Your task to perform on an android device: open app "Microsoft Excel" (install if not already installed), go to login, and select forgot password Image 0: 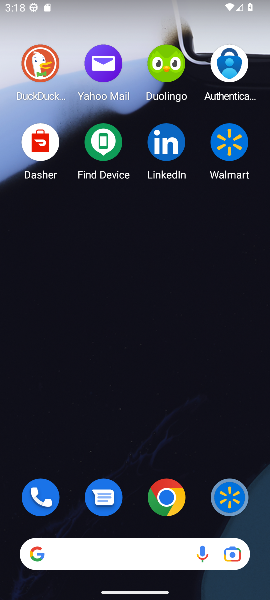
Step 0: drag from (145, 555) to (165, 271)
Your task to perform on an android device: open app "Microsoft Excel" (install if not already installed), go to login, and select forgot password Image 1: 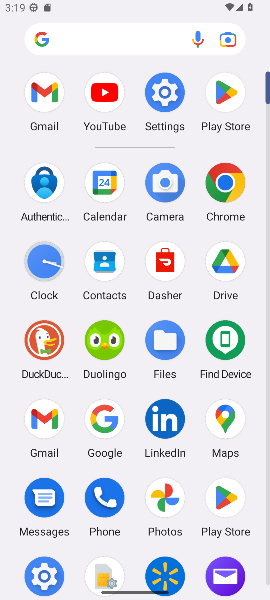
Step 1: click (228, 98)
Your task to perform on an android device: open app "Microsoft Excel" (install if not already installed), go to login, and select forgot password Image 2: 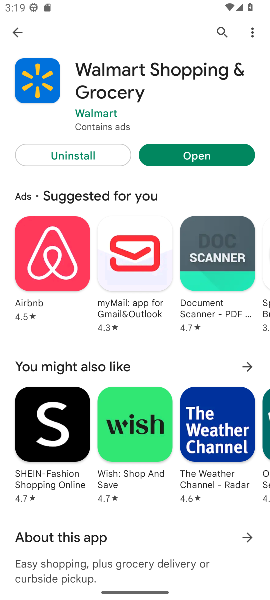
Step 2: press back button
Your task to perform on an android device: open app "Microsoft Excel" (install if not already installed), go to login, and select forgot password Image 3: 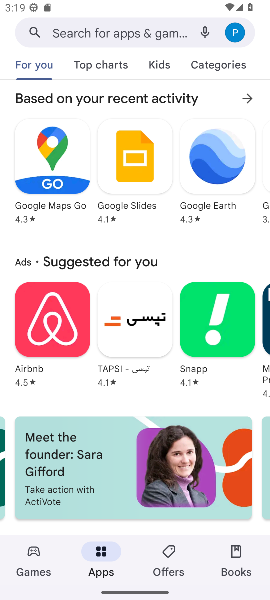
Step 3: click (139, 35)
Your task to perform on an android device: open app "Microsoft Excel" (install if not already installed), go to login, and select forgot password Image 4: 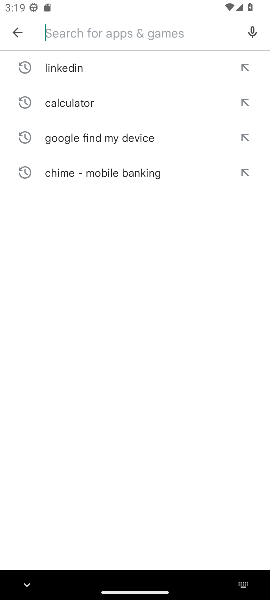
Step 4: type "Microsoft Excel"
Your task to perform on an android device: open app "Microsoft Excel" (install if not already installed), go to login, and select forgot password Image 5: 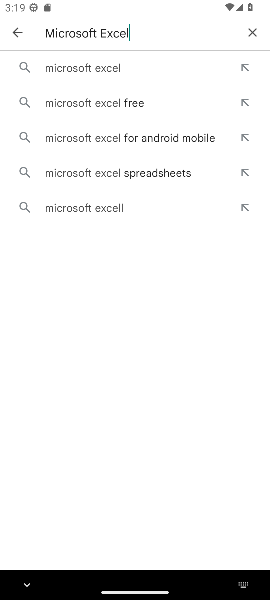
Step 5: click (108, 71)
Your task to perform on an android device: open app "Microsoft Excel" (install if not already installed), go to login, and select forgot password Image 6: 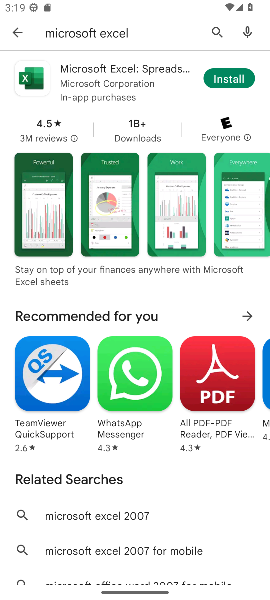
Step 6: click (229, 82)
Your task to perform on an android device: open app "Microsoft Excel" (install if not already installed), go to login, and select forgot password Image 7: 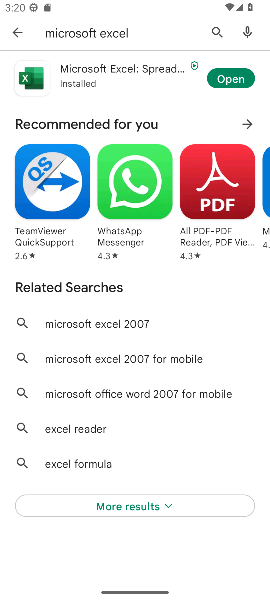
Step 7: click (227, 79)
Your task to perform on an android device: open app "Microsoft Excel" (install if not already installed), go to login, and select forgot password Image 8: 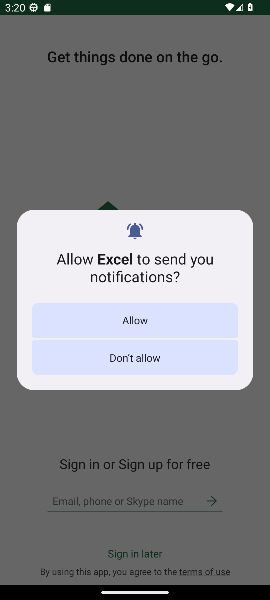
Step 8: click (138, 322)
Your task to perform on an android device: open app "Microsoft Excel" (install if not already installed), go to login, and select forgot password Image 9: 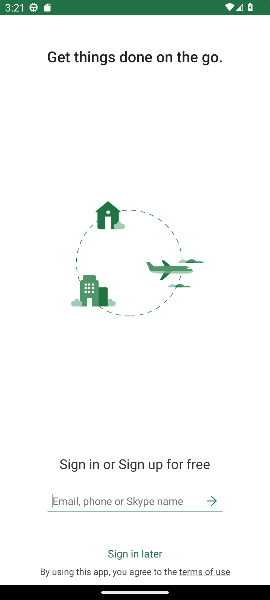
Step 9: click (150, 503)
Your task to perform on an android device: open app "Microsoft Excel" (install if not already installed), go to login, and select forgot password Image 10: 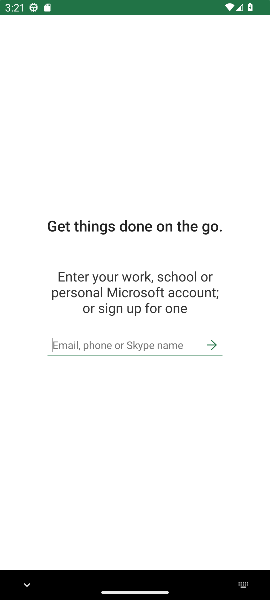
Step 10: click (158, 341)
Your task to perform on an android device: open app "Microsoft Excel" (install if not already installed), go to login, and select forgot password Image 11: 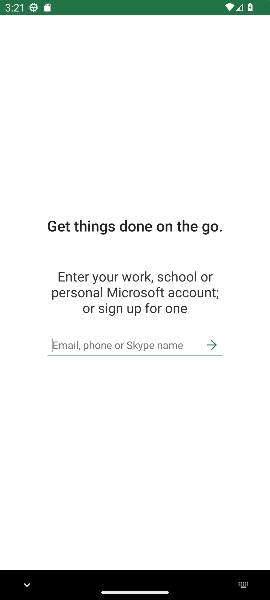
Step 11: type "Abcd@gmail.com"
Your task to perform on an android device: open app "Microsoft Excel" (install if not already installed), go to login, and select forgot password Image 12: 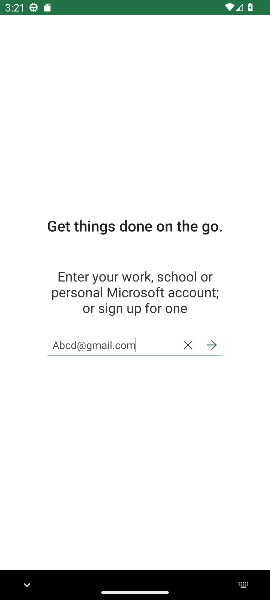
Step 12: click (213, 344)
Your task to perform on an android device: open app "Microsoft Excel" (install if not already installed), go to login, and select forgot password Image 13: 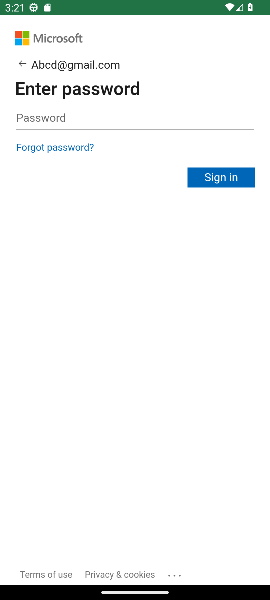
Step 13: click (35, 150)
Your task to perform on an android device: open app "Microsoft Excel" (install if not already installed), go to login, and select forgot password Image 14: 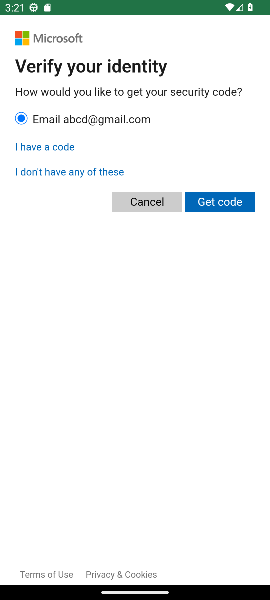
Step 14: task complete